Your task to perform on an android device: manage bookmarks in the chrome app Image 0: 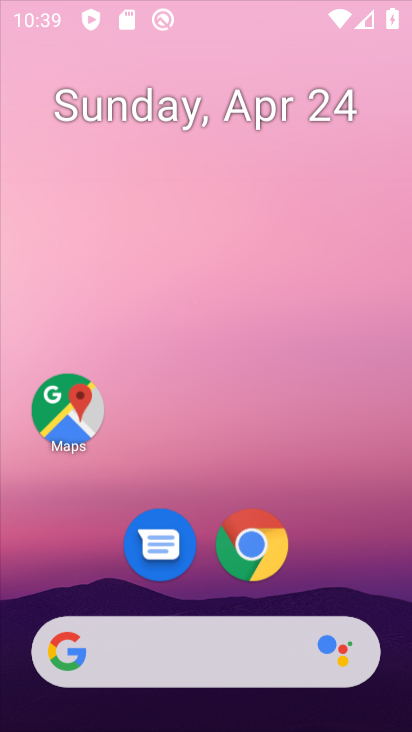
Step 0: click (264, 181)
Your task to perform on an android device: manage bookmarks in the chrome app Image 1: 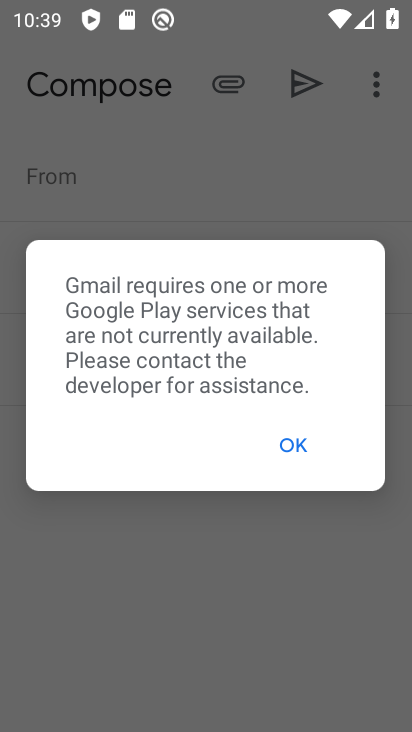
Step 1: press home button
Your task to perform on an android device: manage bookmarks in the chrome app Image 2: 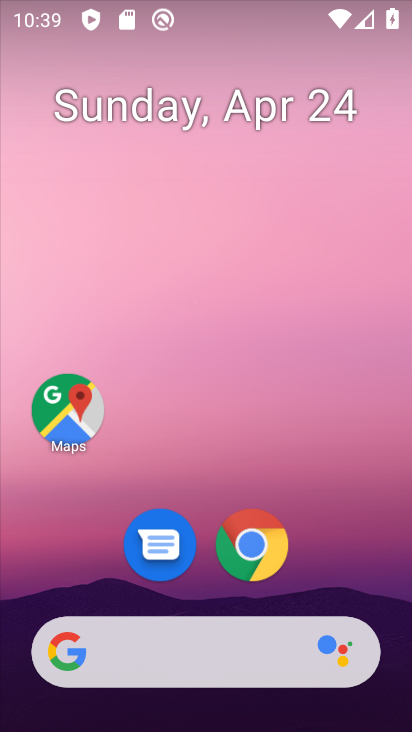
Step 2: drag from (231, 686) to (278, 188)
Your task to perform on an android device: manage bookmarks in the chrome app Image 3: 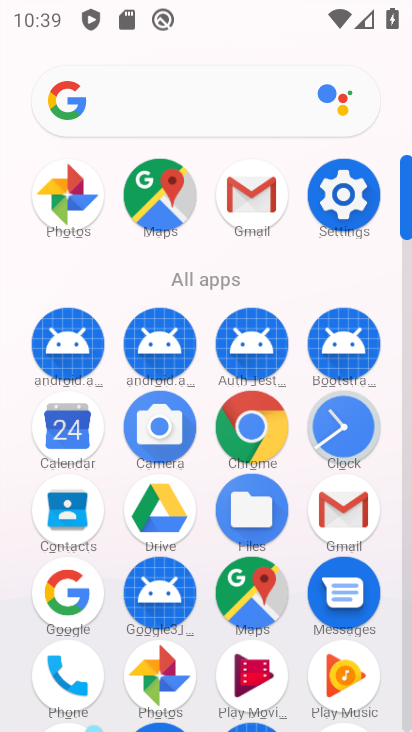
Step 3: click (261, 433)
Your task to perform on an android device: manage bookmarks in the chrome app Image 4: 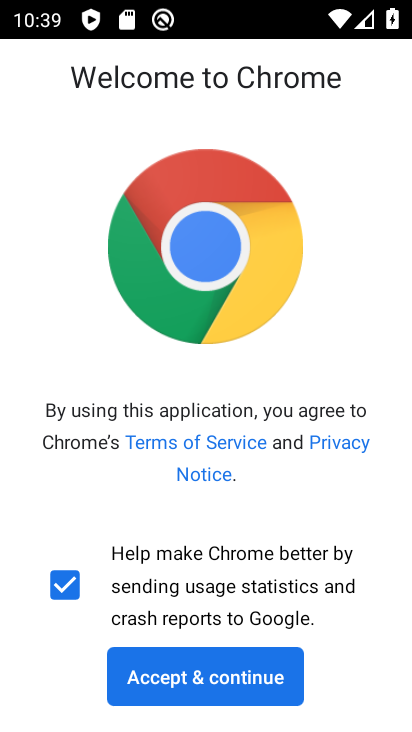
Step 4: click (190, 667)
Your task to perform on an android device: manage bookmarks in the chrome app Image 5: 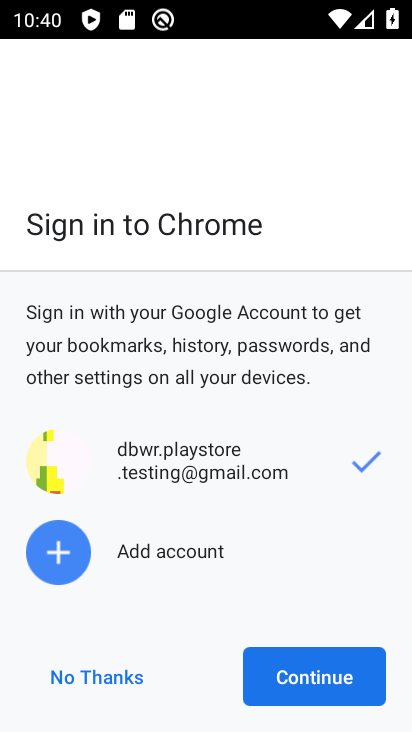
Step 5: click (312, 658)
Your task to perform on an android device: manage bookmarks in the chrome app Image 6: 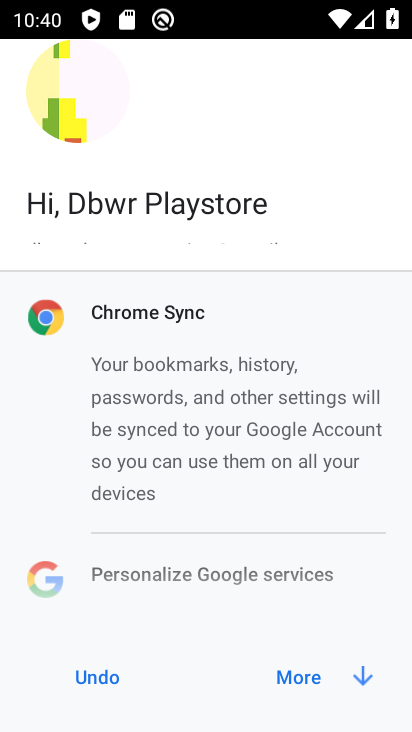
Step 6: click (366, 682)
Your task to perform on an android device: manage bookmarks in the chrome app Image 7: 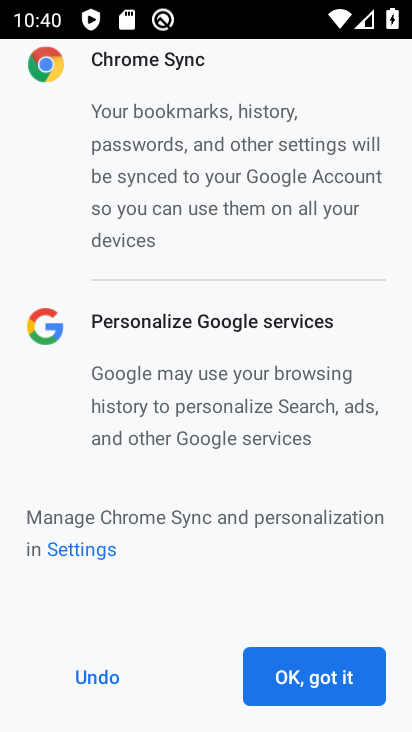
Step 7: click (278, 698)
Your task to perform on an android device: manage bookmarks in the chrome app Image 8: 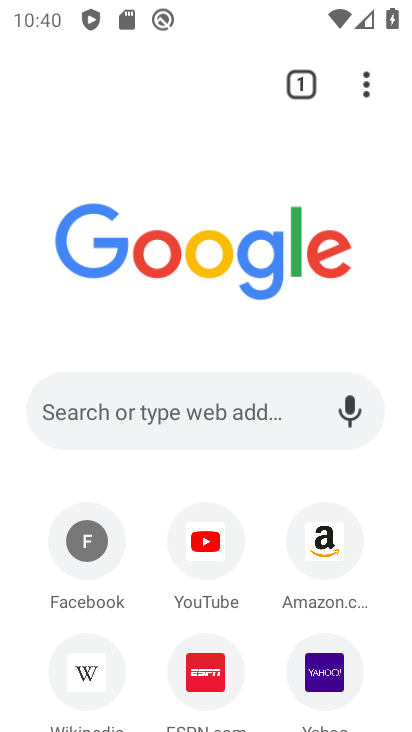
Step 8: click (368, 93)
Your task to perform on an android device: manage bookmarks in the chrome app Image 9: 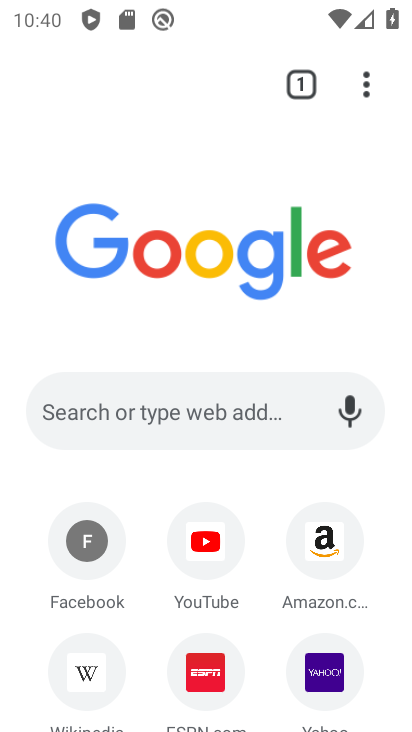
Step 9: click (355, 84)
Your task to perform on an android device: manage bookmarks in the chrome app Image 10: 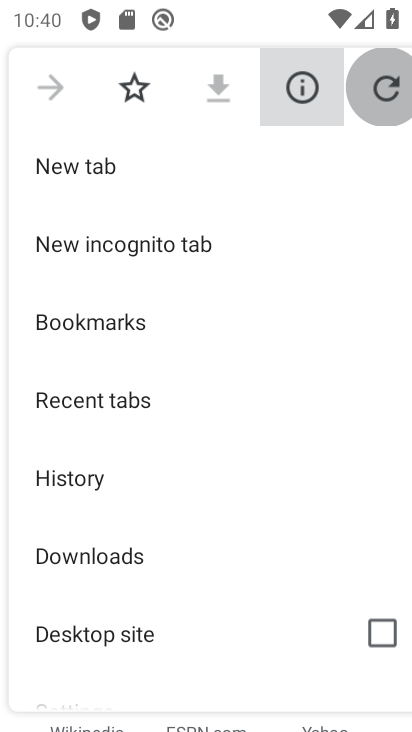
Step 10: click (365, 96)
Your task to perform on an android device: manage bookmarks in the chrome app Image 11: 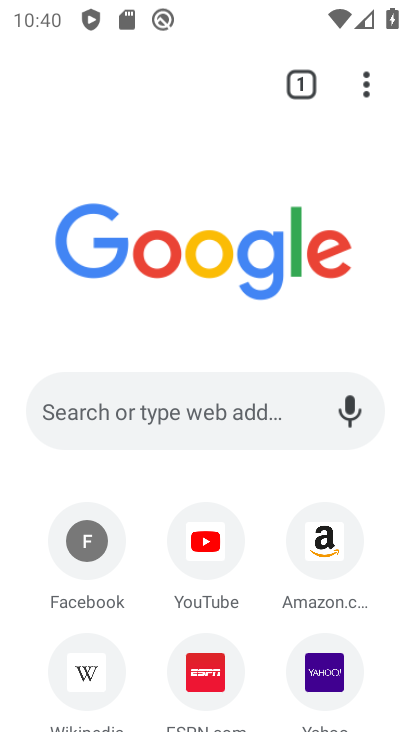
Step 11: click (300, 196)
Your task to perform on an android device: manage bookmarks in the chrome app Image 12: 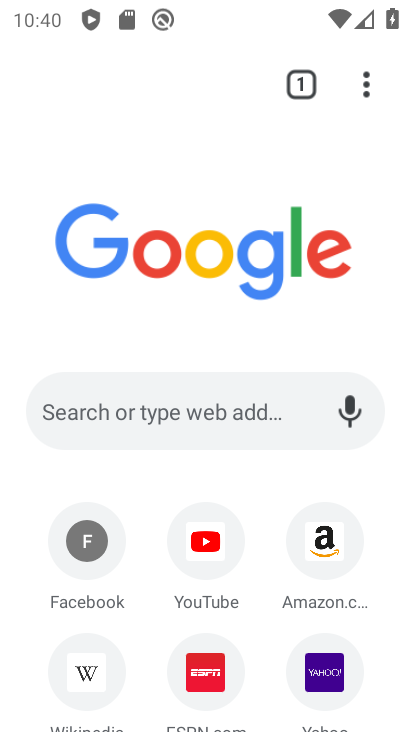
Step 12: click (359, 111)
Your task to perform on an android device: manage bookmarks in the chrome app Image 13: 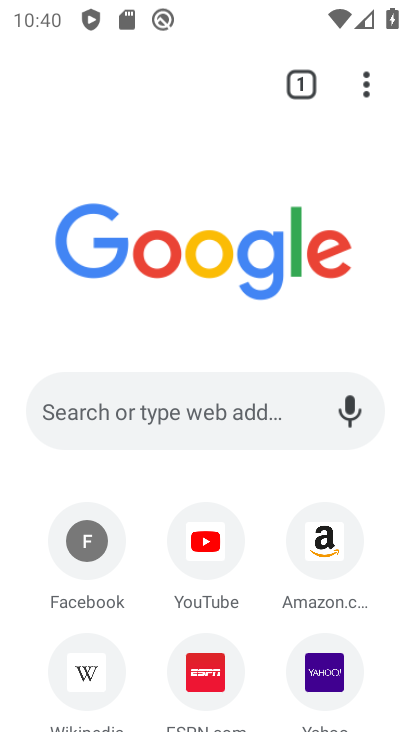
Step 13: click (362, 106)
Your task to perform on an android device: manage bookmarks in the chrome app Image 14: 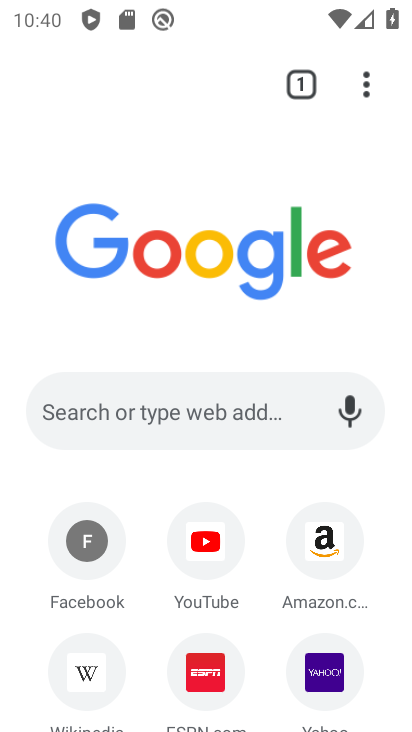
Step 14: click (361, 92)
Your task to perform on an android device: manage bookmarks in the chrome app Image 15: 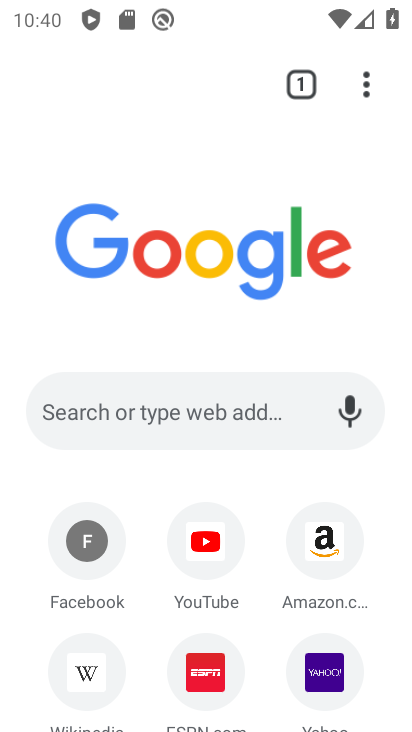
Step 15: click (361, 92)
Your task to perform on an android device: manage bookmarks in the chrome app Image 16: 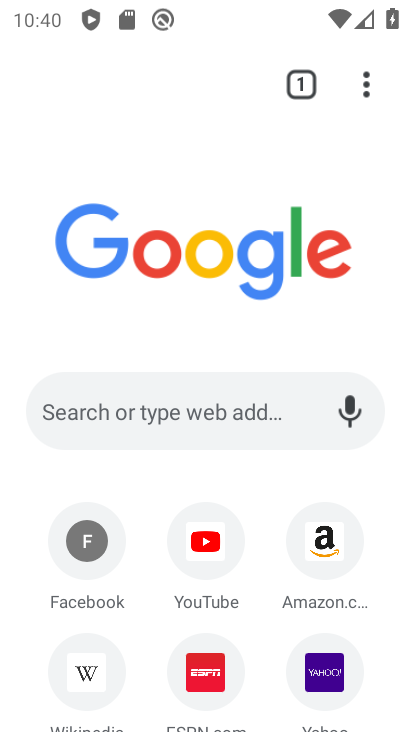
Step 16: click (365, 97)
Your task to perform on an android device: manage bookmarks in the chrome app Image 17: 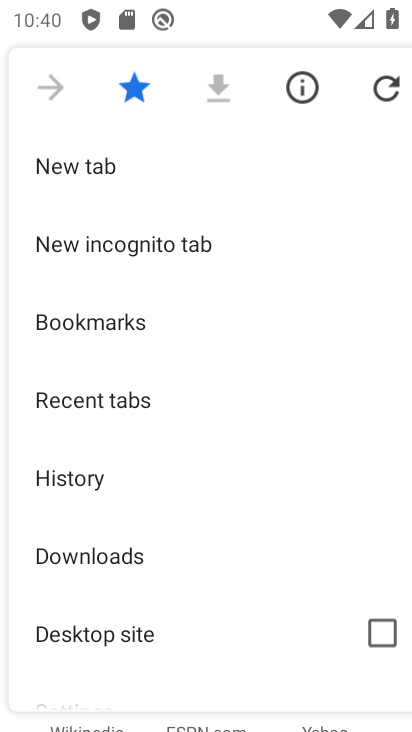
Step 17: click (118, 328)
Your task to perform on an android device: manage bookmarks in the chrome app Image 18: 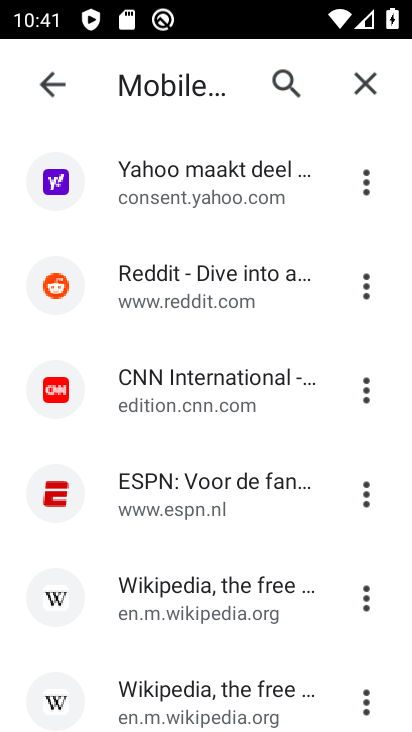
Step 18: task complete